Your task to perform on an android device: Open my contact list Image 0: 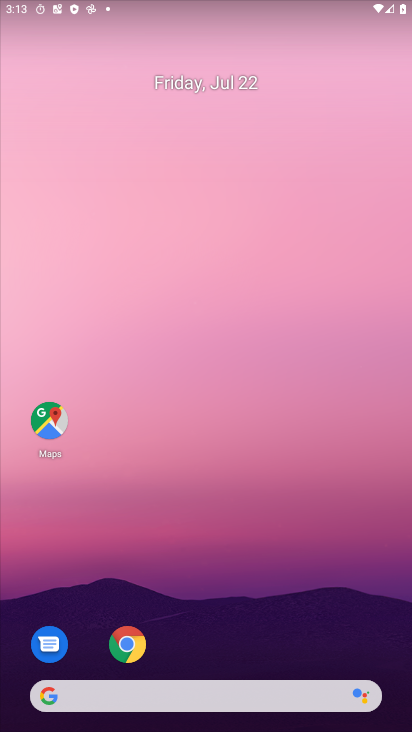
Step 0: drag from (196, 656) to (259, 206)
Your task to perform on an android device: Open my contact list Image 1: 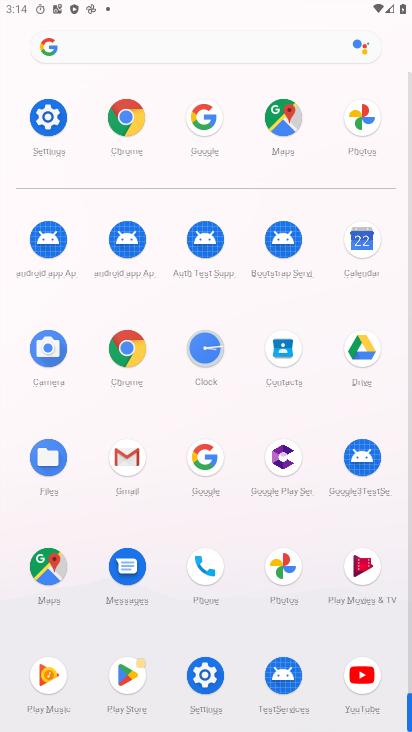
Step 1: drag from (184, 509) to (170, 243)
Your task to perform on an android device: Open my contact list Image 2: 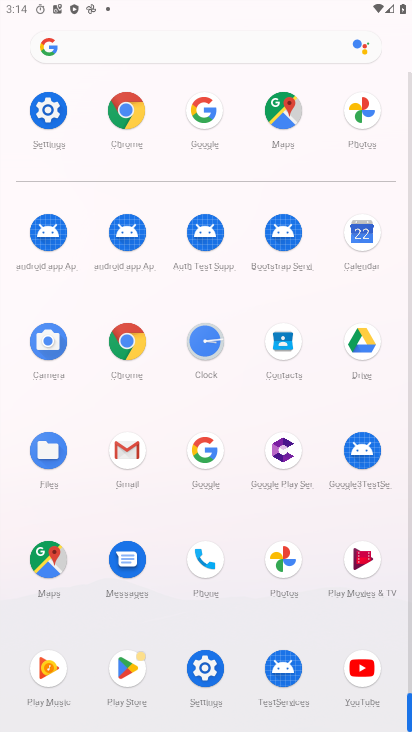
Step 2: click (304, 363)
Your task to perform on an android device: Open my contact list Image 3: 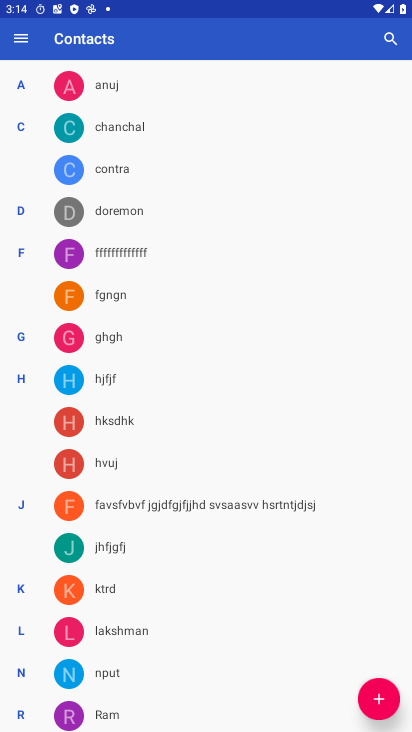
Step 3: task complete